Your task to perform on an android device: Open display settings Image 0: 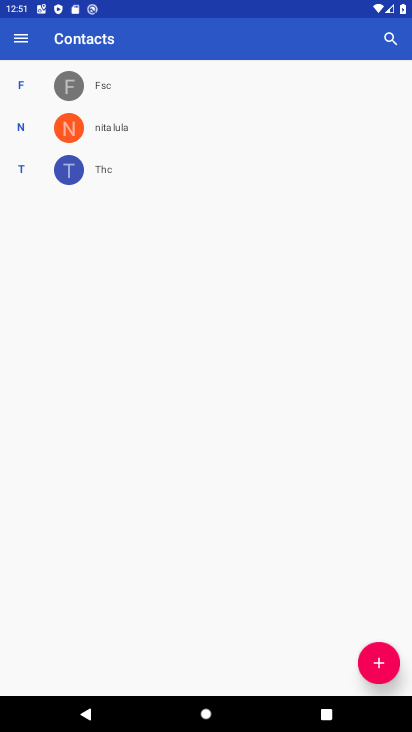
Step 0: press home button
Your task to perform on an android device: Open display settings Image 1: 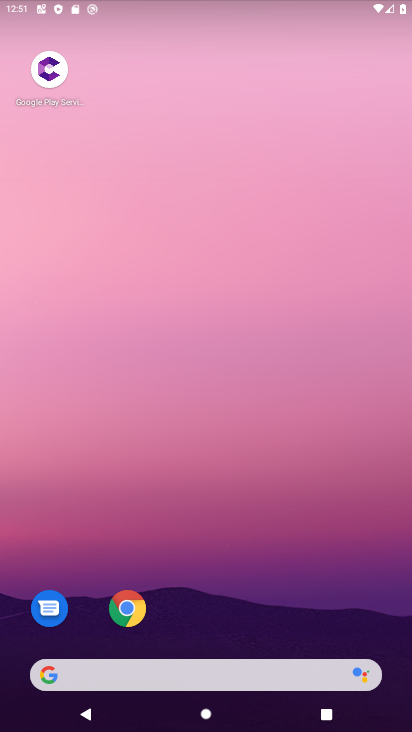
Step 1: drag from (199, 625) to (205, 253)
Your task to perform on an android device: Open display settings Image 2: 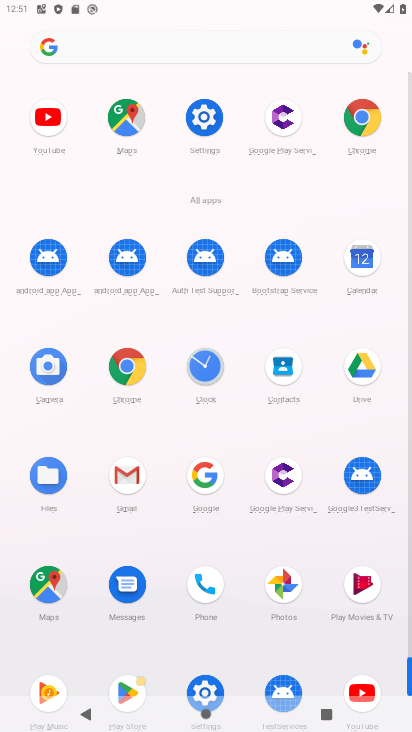
Step 2: click (214, 105)
Your task to perform on an android device: Open display settings Image 3: 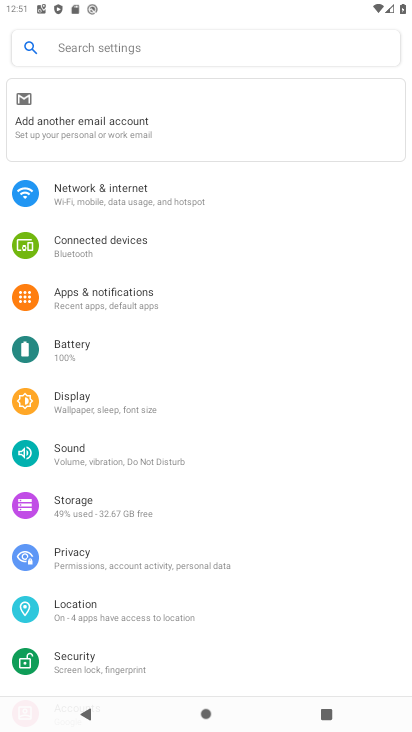
Step 3: click (120, 402)
Your task to perform on an android device: Open display settings Image 4: 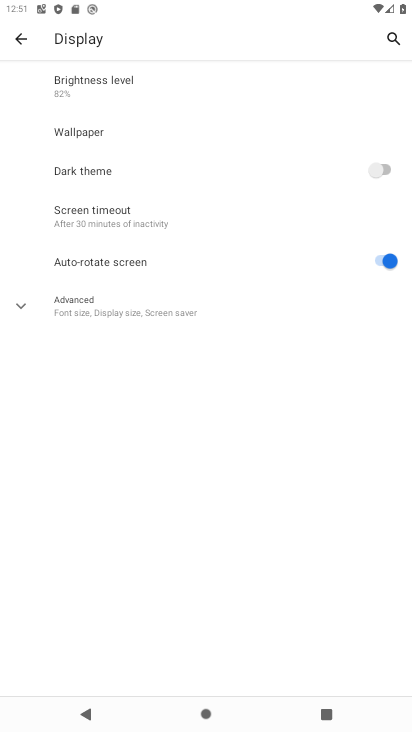
Step 4: task complete